Your task to perform on an android device: visit the assistant section in the google photos Image 0: 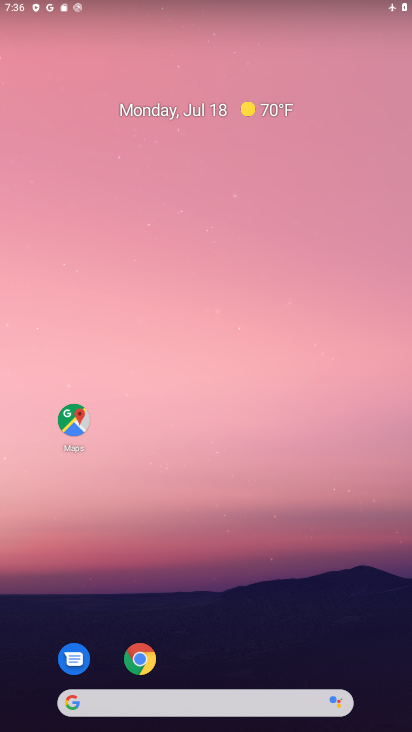
Step 0: drag from (193, 707) to (268, 200)
Your task to perform on an android device: visit the assistant section in the google photos Image 1: 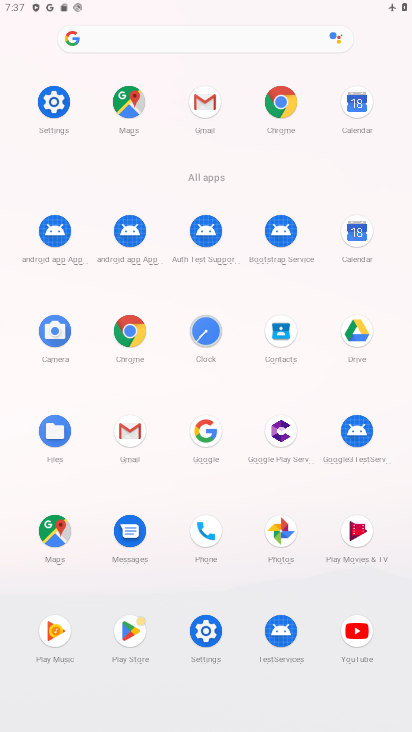
Step 1: click (281, 531)
Your task to perform on an android device: visit the assistant section in the google photos Image 2: 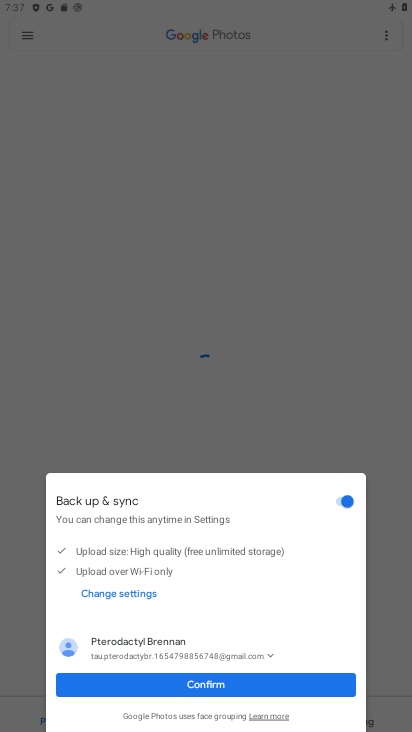
Step 2: click (241, 682)
Your task to perform on an android device: visit the assistant section in the google photos Image 3: 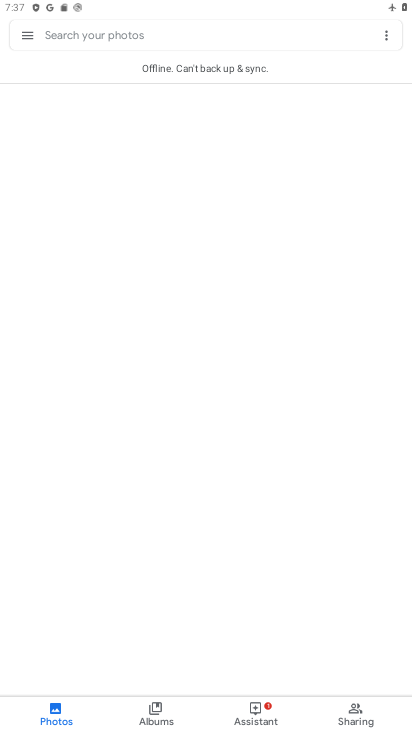
Step 3: click (263, 717)
Your task to perform on an android device: visit the assistant section in the google photos Image 4: 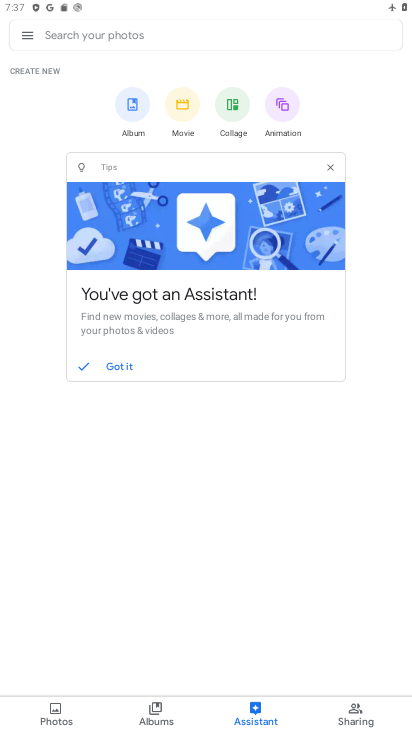
Step 4: task complete